Your task to perform on an android device: toggle pop-ups in chrome Image 0: 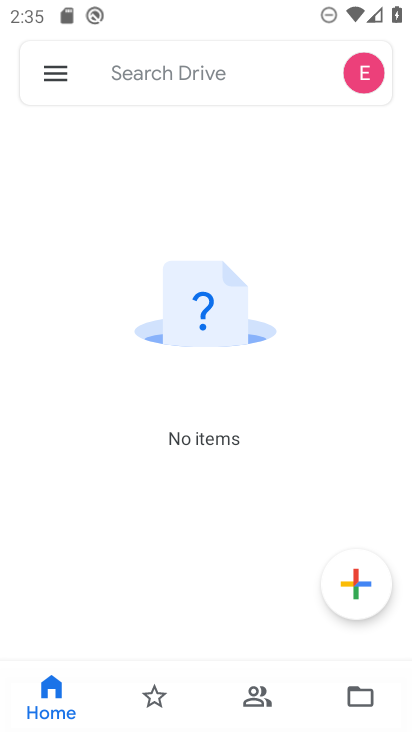
Step 0: press home button
Your task to perform on an android device: toggle pop-ups in chrome Image 1: 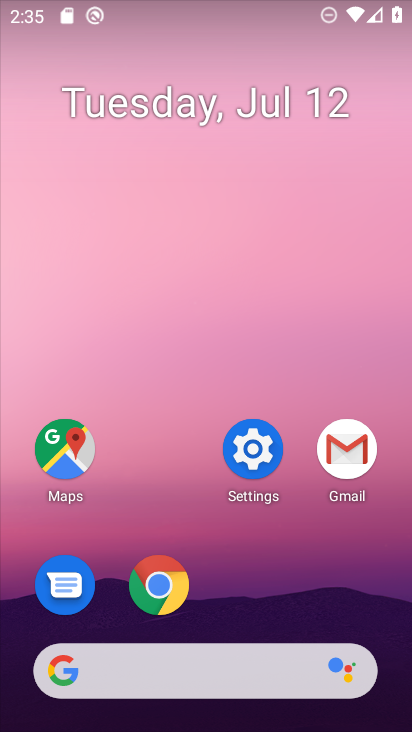
Step 1: click (164, 579)
Your task to perform on an android device: toggle pop-ups in chrome Image 2: 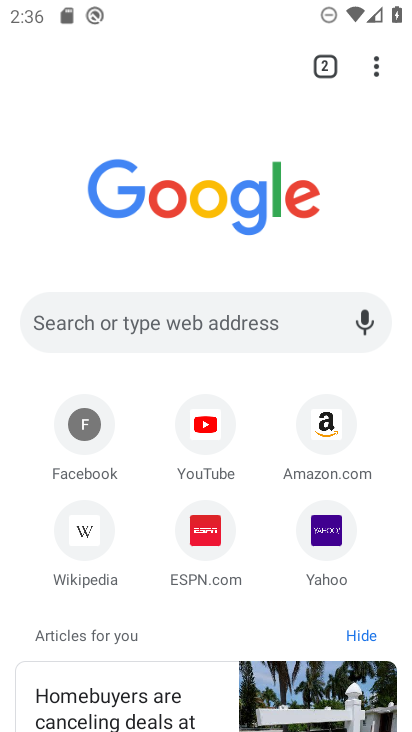
Step 2: click (380, 67)
Your task to perform on an android device: toggle pop-ups in chrome Image 3: 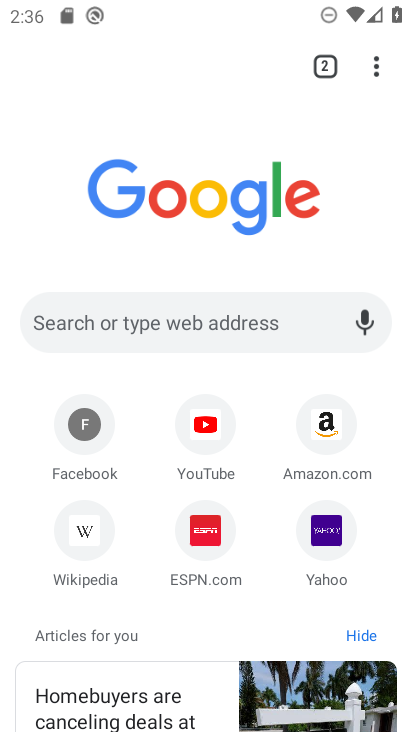
Step 3: click (373, 61)
Your task to perform on an android device: toggle pop-ups in chrome Image 4: 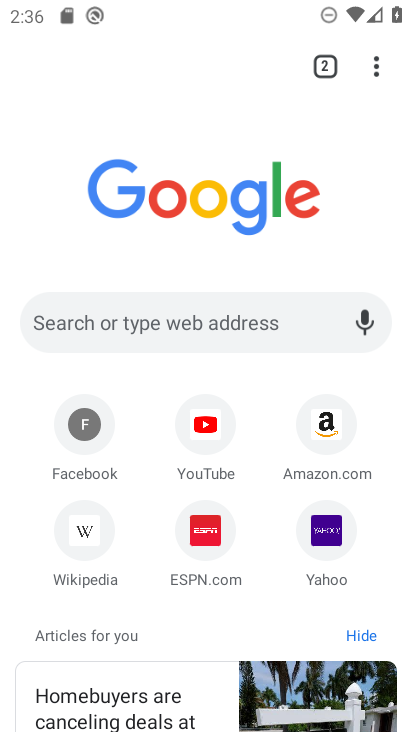
Step 4: click (373, 61)
Your task to perform on an android device: toggle pop-ups in chrome Image 5: 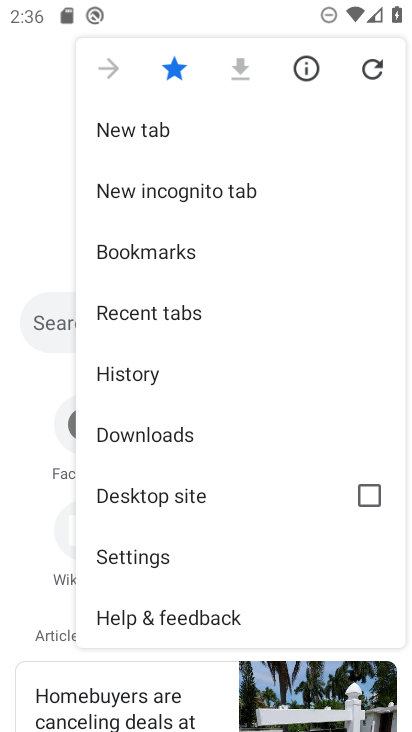
Step 5: drag from (287, 587) to (310, 205)
Your task to perform on an android device: toggle pop-ups in chrome Image 6: 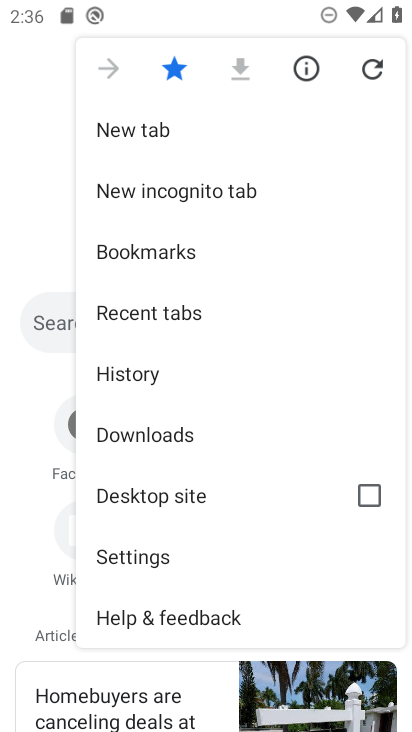
Step 6: click (146, 561)
Your task to perform on an android device: toggle pop-ups in chrome Image 7: 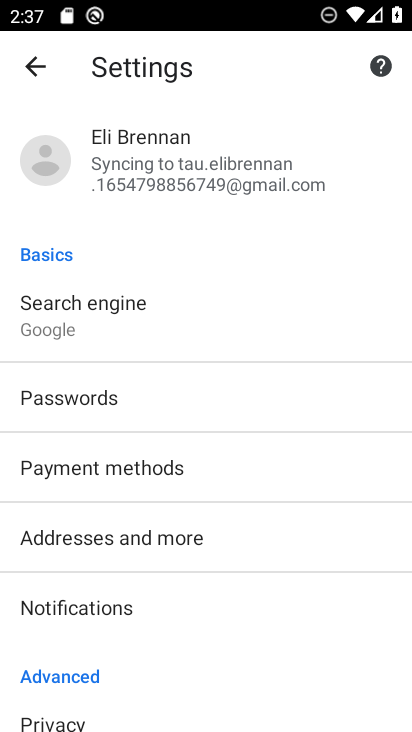
Step 7: drag from (207, 697) to (224, 349)
Your task to perform on an android device: toggle pop-ups in chrome Image 8: 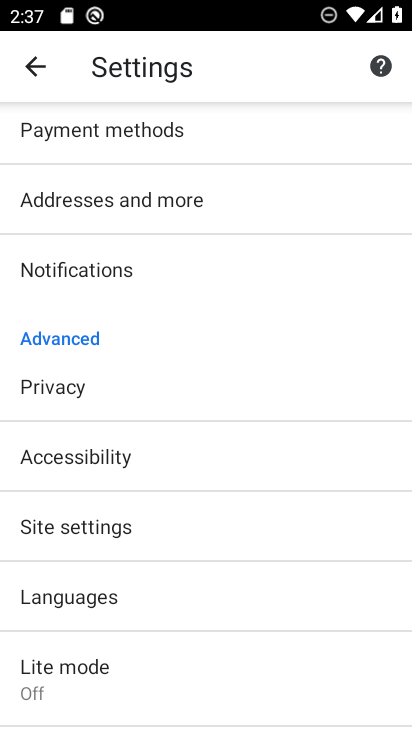
Step 8: drag from (241, 626) to (242, 398)
Your task to perform on an android device: toggle pop-ups in chrome Image 9: 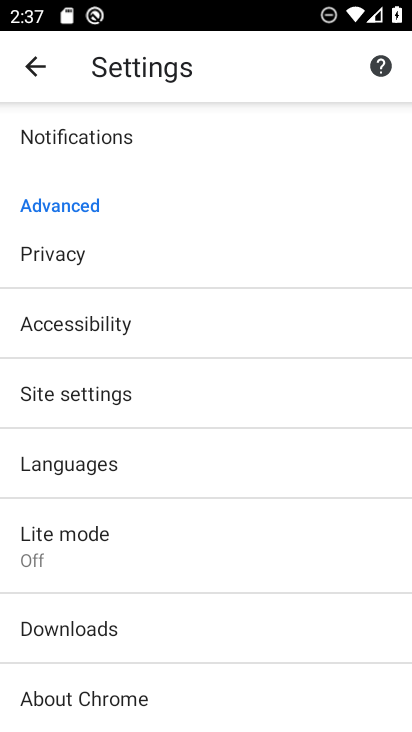
Step 9: drag from (217, 627) to (226, 354)
Your task to perform on an android device: toggle pop-ups in chrome Image 10: 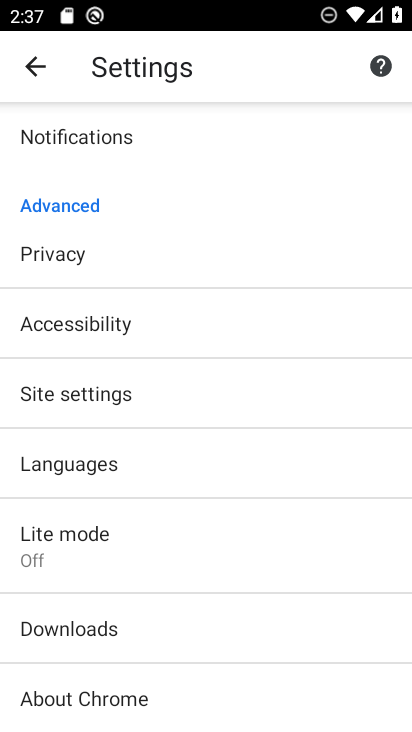
Step 10: drag from (265, 370) to (262, 294)
Your task to perform on an android device: toggle pop-ups in chrome Image 11: 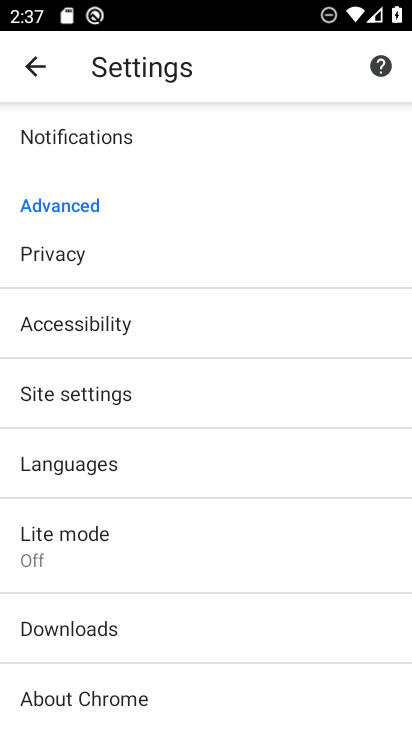
Step 11: drag from (303, 671) to (298, 141)
Your task to perform on an android device: toggle pop-ups in chrome Image 12: 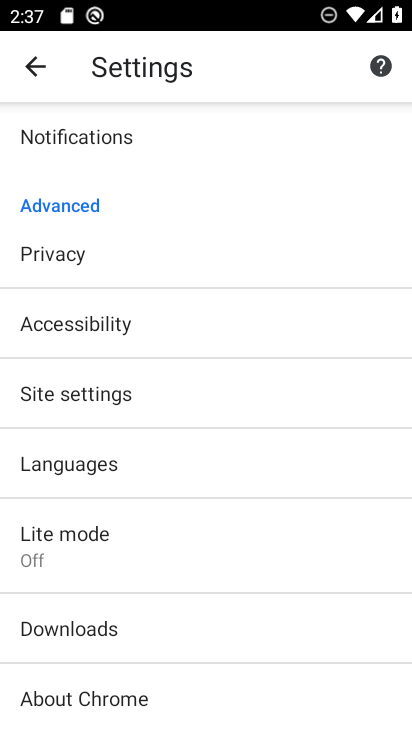
Step 12: click (111, 395)
Your task to perform on an android device: toggle pop-ups in chrome Image 13: 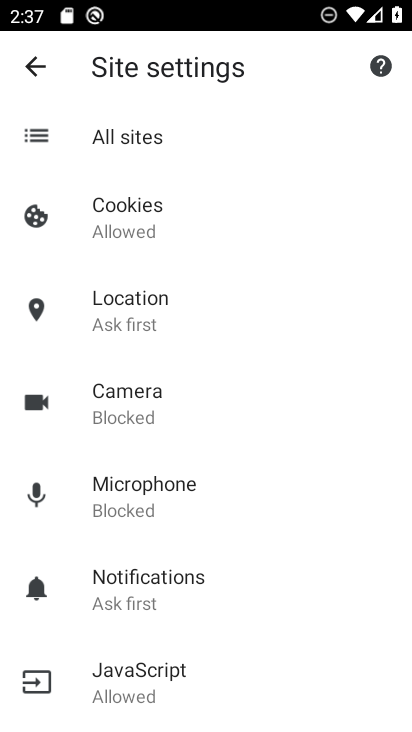
Step 13: drag from (283, 650) to (284, 255)
Your task to perform on an android device: toggle pop-ups in chrome Image 14: 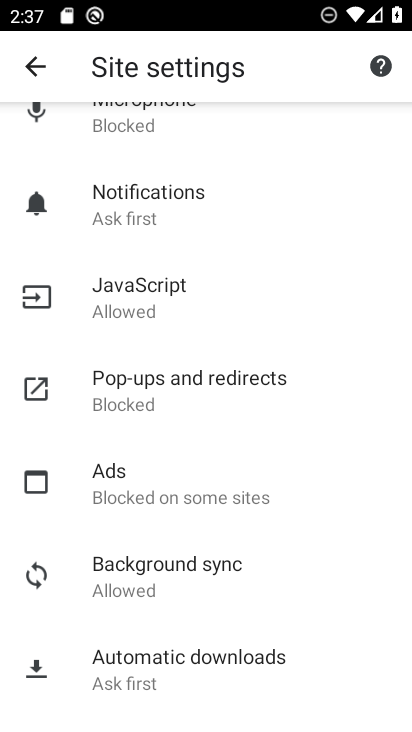
Step 14: drag from (310, 696) to (303, 451)
Your task to perform on an android device: toggle pop-ups in chrome Image 15: 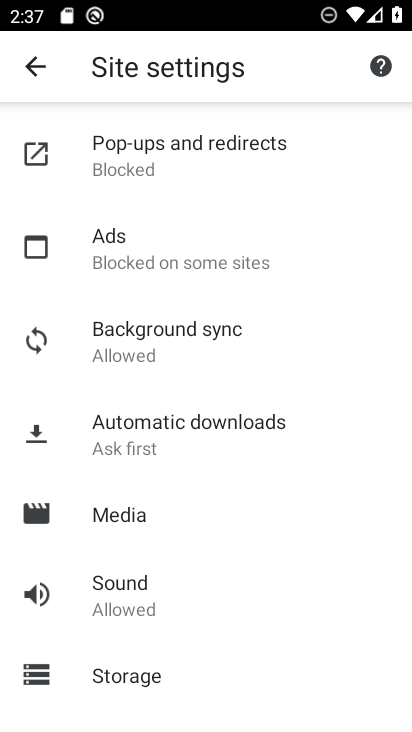
Step 15: click (155, 153)
Your task to perform on an android device: toggle pop-ups in chrome Image 16: 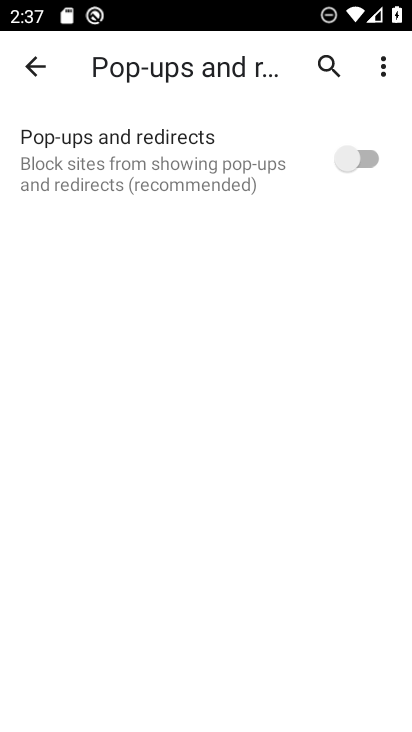
Step 16: click (362, 151)
Your task to perform on an android device: toggle pop-ups in chrome Image 17: 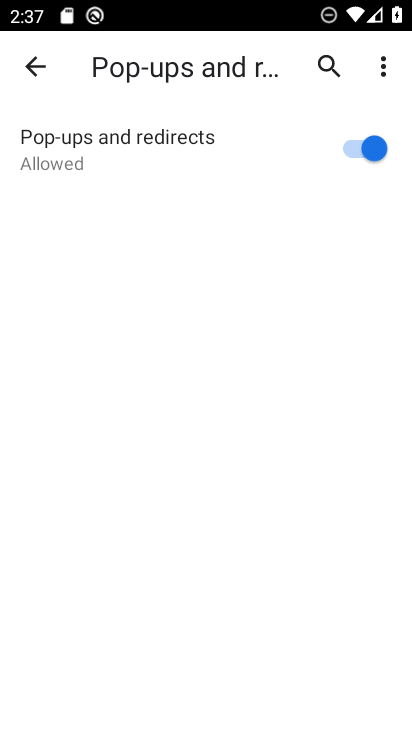
Step 17: task complete